Your task to perform on an android device: change the clock style Image 0: 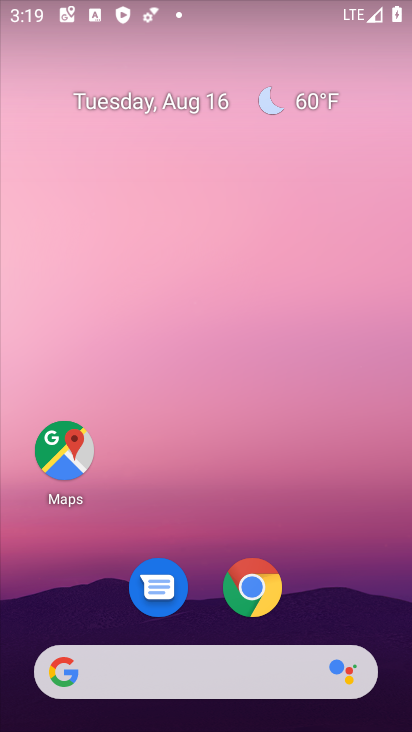
Step 0: drag from (208, 618) to (300, 3)
Your task to perform on an android device: change the clock style Image 1: 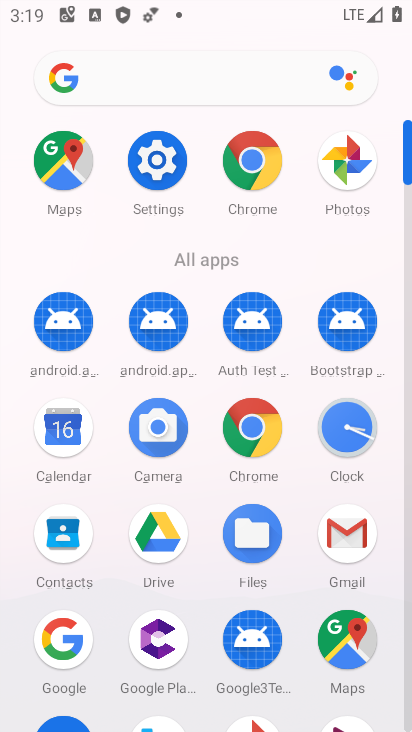
Step 1: click (353, 427)
Your task to perform on an android device: change the clock style Image 2: 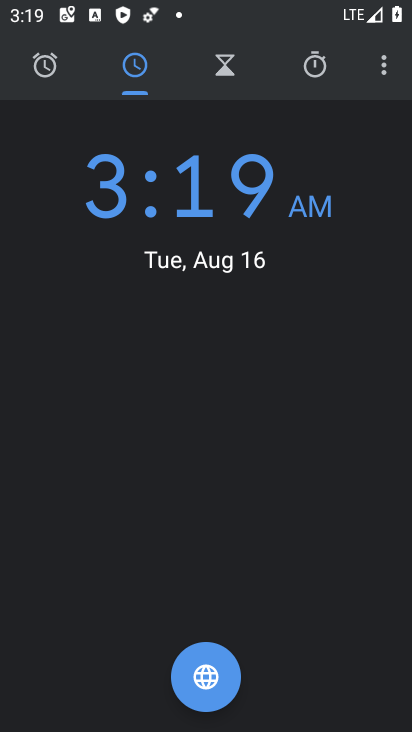
Step 2: click (381, 60)
Your task to perform on an android device: change the clock style Image 3: 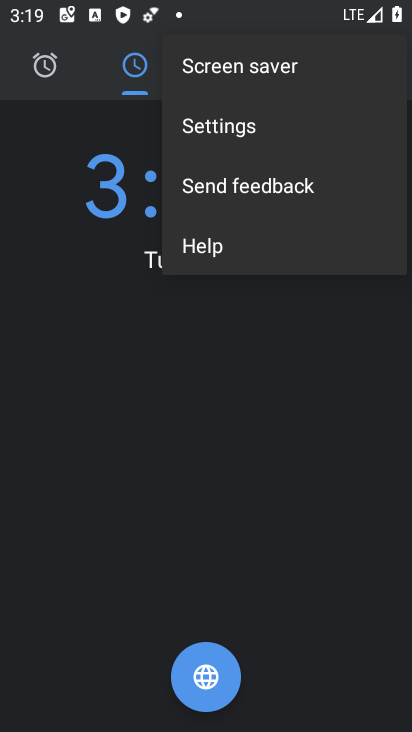
Step 3: click (254, 131)
Your task to perform on an android device: change the clock style Image 4: 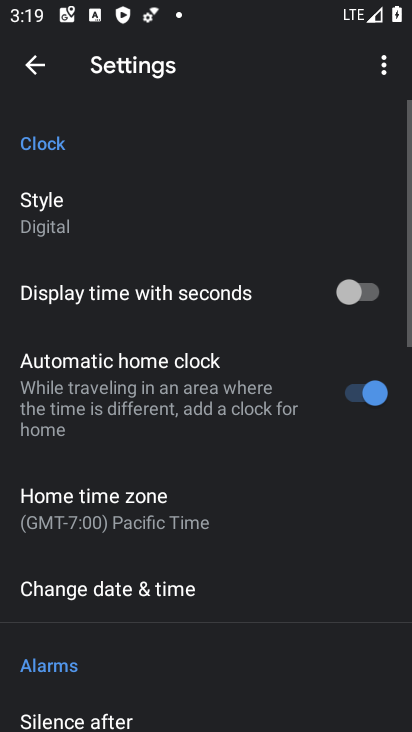
Step 4: click (70, 212)
Your task to perform on an android device: change the clock style Image 5: 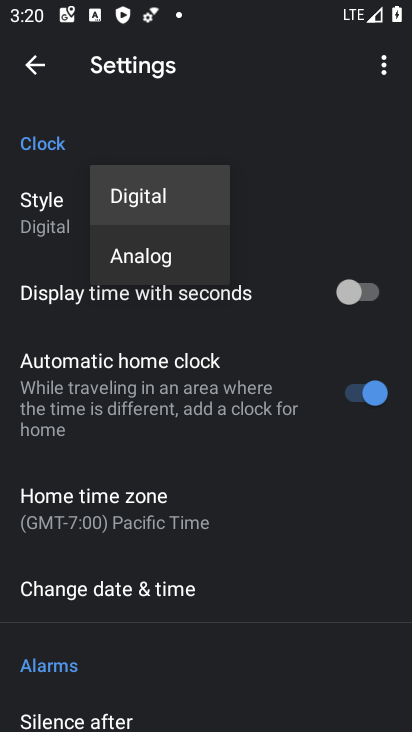
Step 5: click (58, 246)
Your task to perform on an android device: change the clock style Image 6: 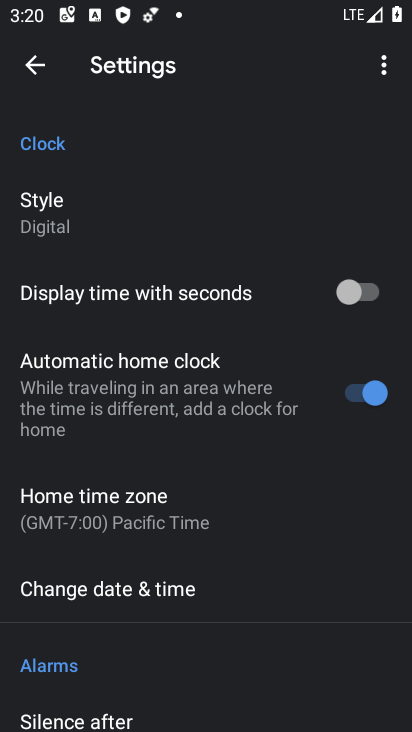
Step 6: click (44, 202)
Your task to perform on an android device: change the clock style Image 7: 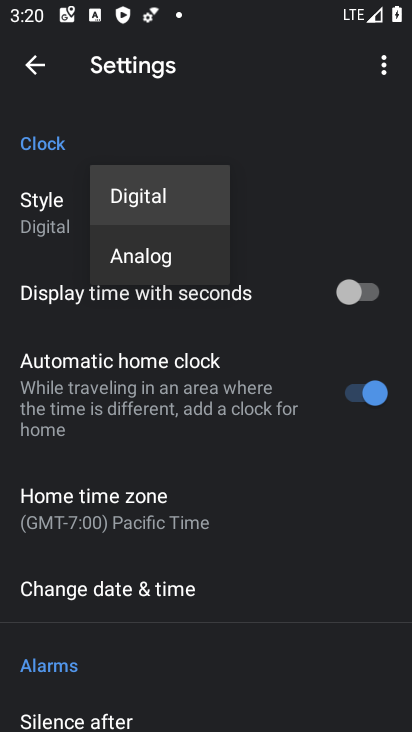
Step 7: click (140, 262)
Your task to perform on an android device: change the clock style Image 8: 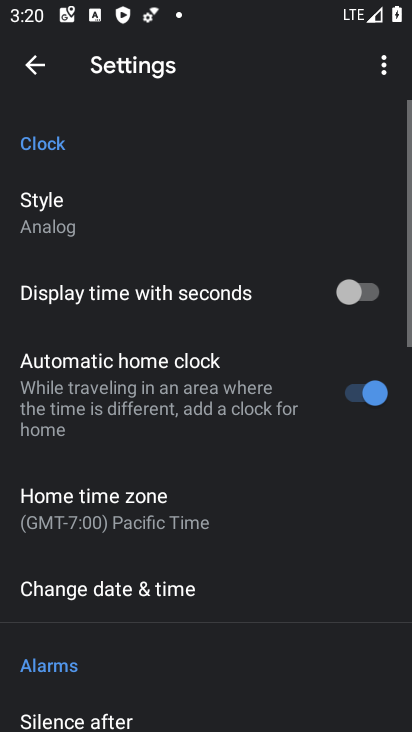
Step 8: task complete